Your task to perform on an android device: open a new tab in the chrome app Image 0: 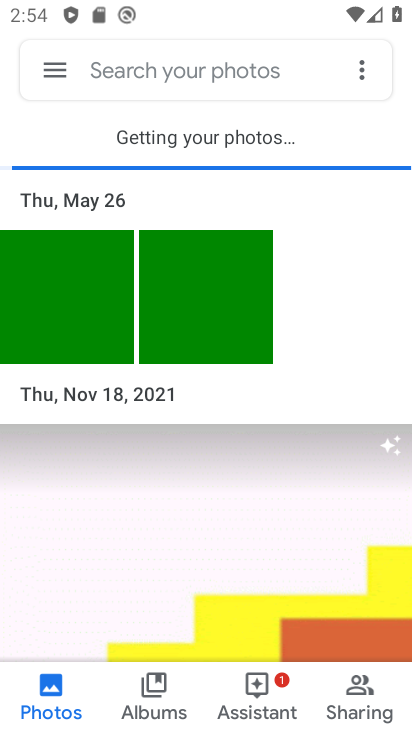
Step 0: press home button
Your task to perform on an android device: open a new tab in the chrome app Image 1: 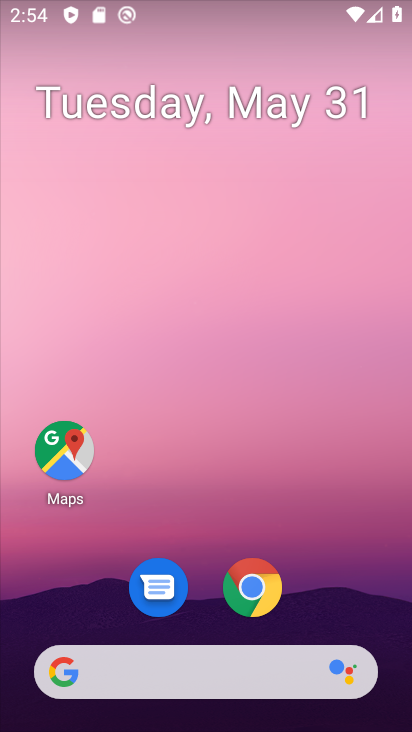
Step 1: click (257, 591)
Your task to perform on an android device: open a new tab in the chrome app Image 2: 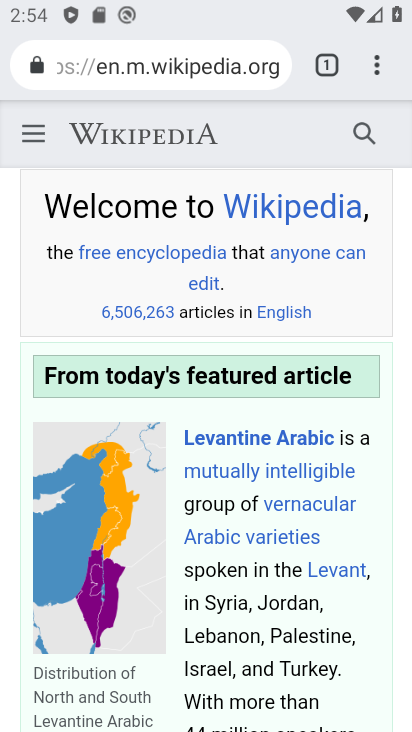
Step 2: click (374, 68)
Your task to perform on an android device: open a new tab in the chrome app Image 3: 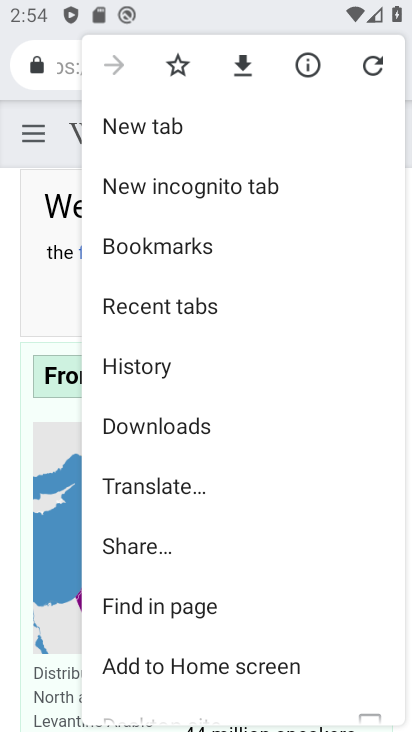
Step 3: click (162, 135)
Your task to perform on an android device: open a new tab in the chrome app Image 4: 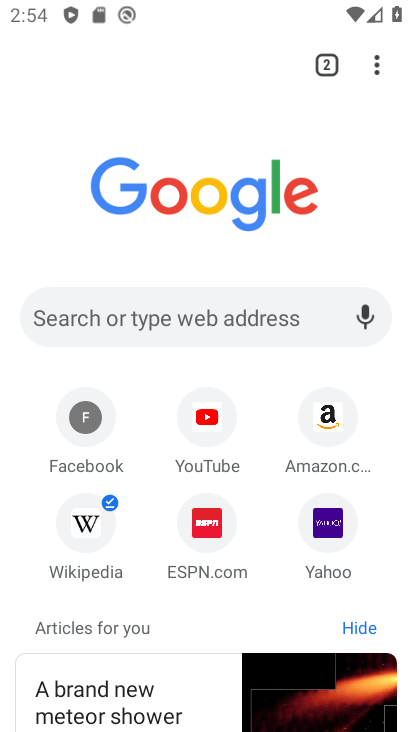
Step 4: task complete